Your task to perform on an android device: toggle location history Image 0: 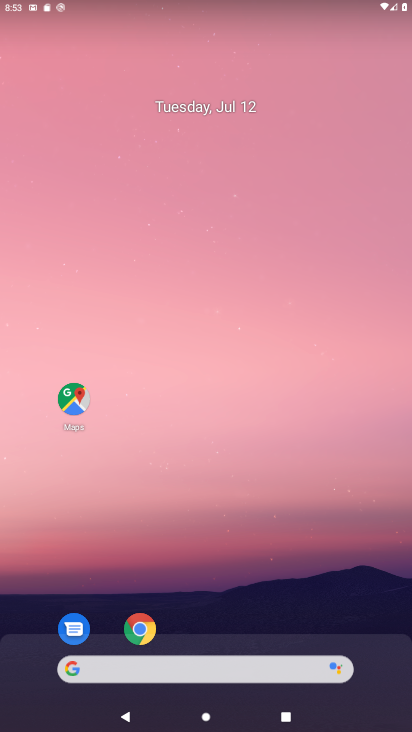
Step 0: drag from (197, 436) to (145, 10)
Your task to perform on an android device: toggle location history Image 1: 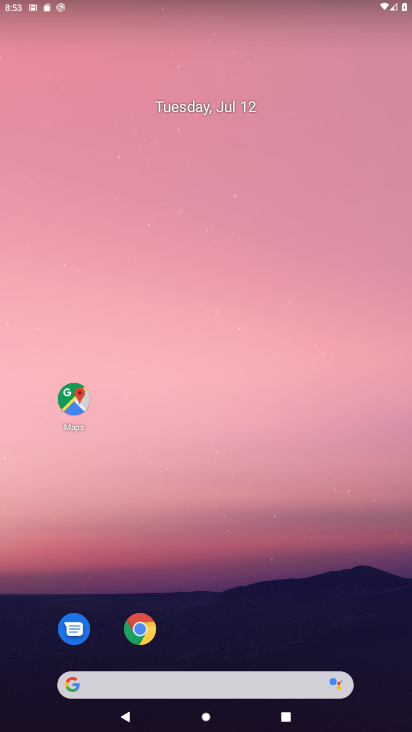
Step 1: drag from (209, 637) to (178, 63)
Your task to perform on an android device: toggle location history Image 2: 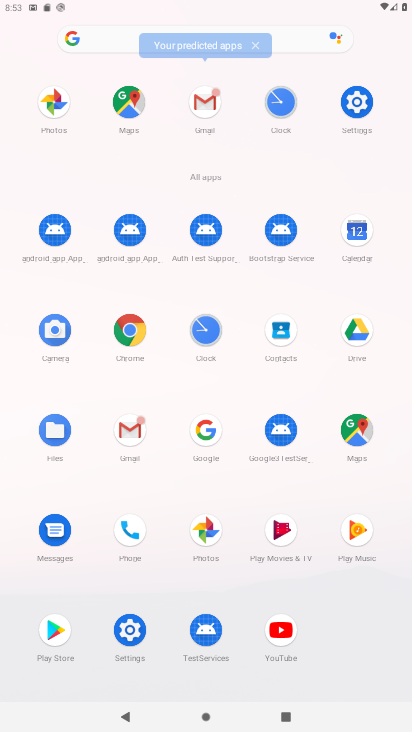
Step 2: drag from (198, 362) to (229, 19)
Your task to perform on an android device: toggle location history Image 3: 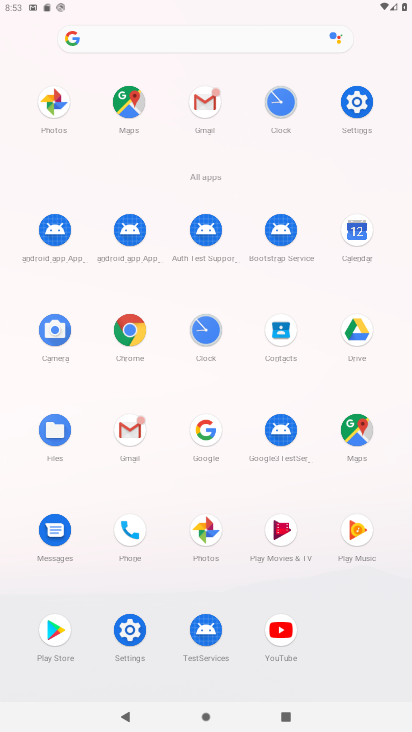
Step 3: click (360, 91)
Your task to perform on an android device: toggle location history Image 4: 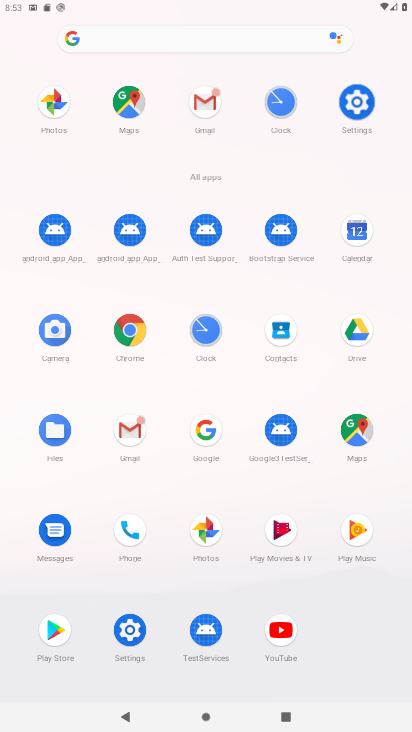
Step 4: click (362, 89)
Your task to perform on an android device: toggle location history Image 5: 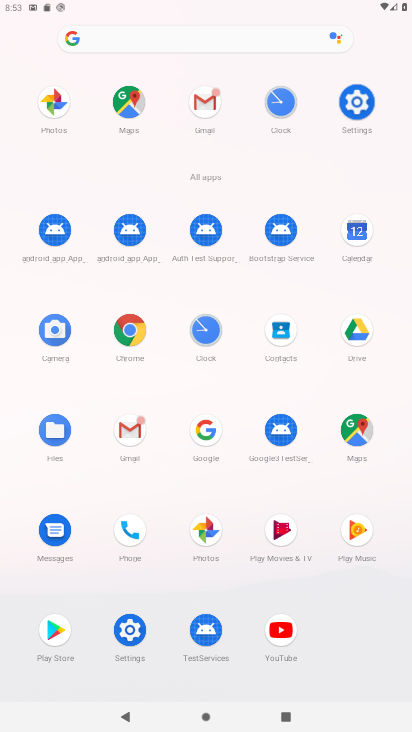
Step 5: click (368, 93)
Your task to perform on an android device: toggle location history Image 6: 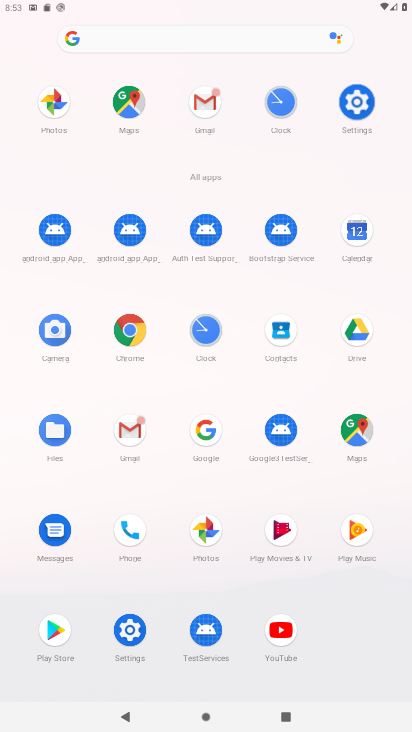
Step 6: click (378, 103)
Your task to perform on an android device: toggle location history Image 7: 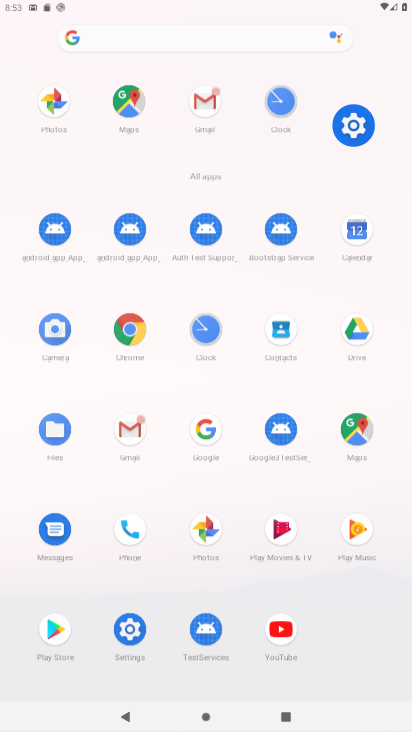
Step 7: click (379, 104)
Your task to perform on an android device: toggle location history Image 8: 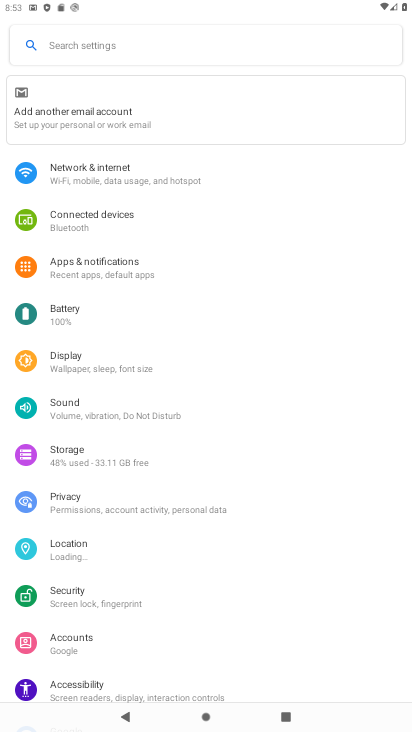
Step 8: click (68, 551)
Your task to perform on an android device: toggle location history Image 9: 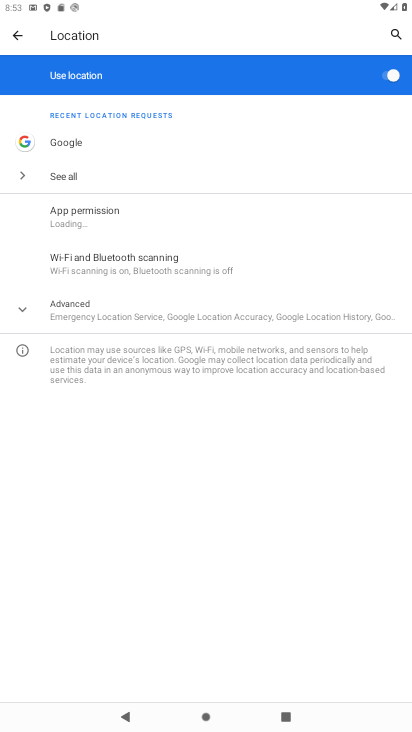
Step 9: click (119, 308)
Your task to perform on an android device: toggle location history Image 10: 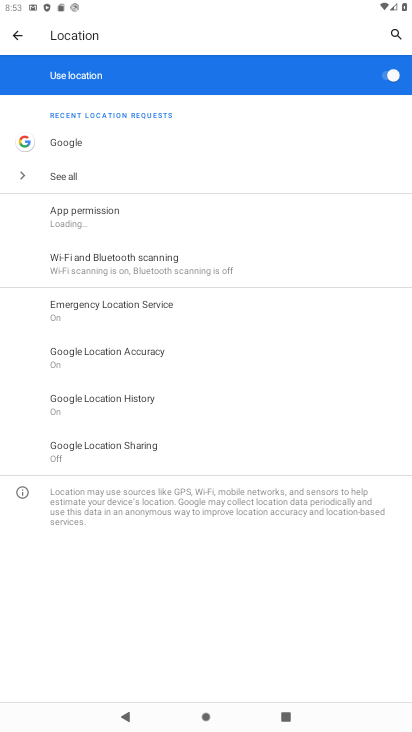
Step 10: click (119, 392)
Your task to perform on an android device: toggle location history Image 11: 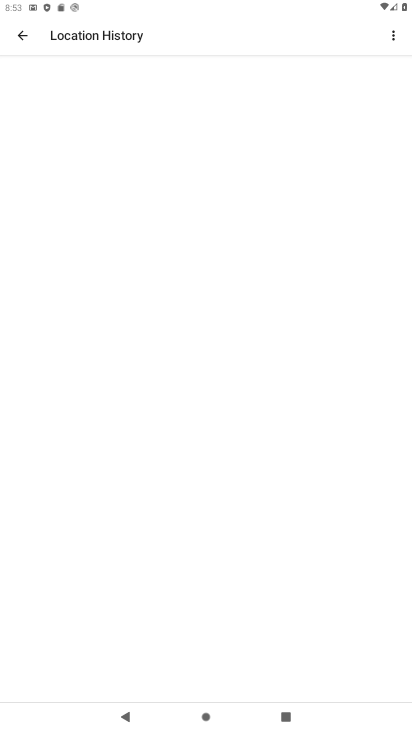
Step 11: task complete